Your task to perform on an android device: check out phone information Image 0: 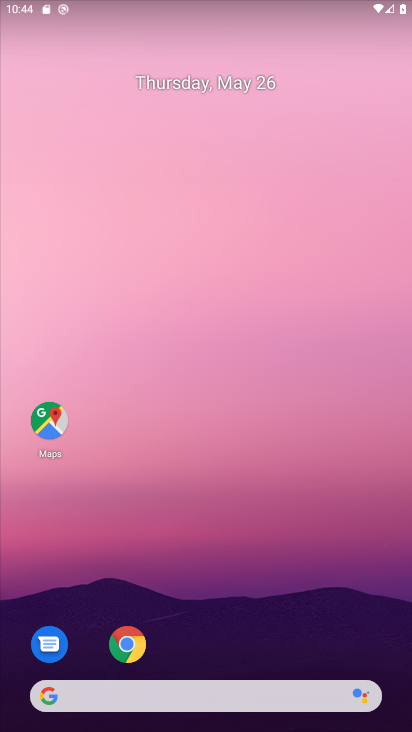
Step 0: drag from (356, 647) to (383, 264)
Your task to perform on an android device: check out phone information Image 1: 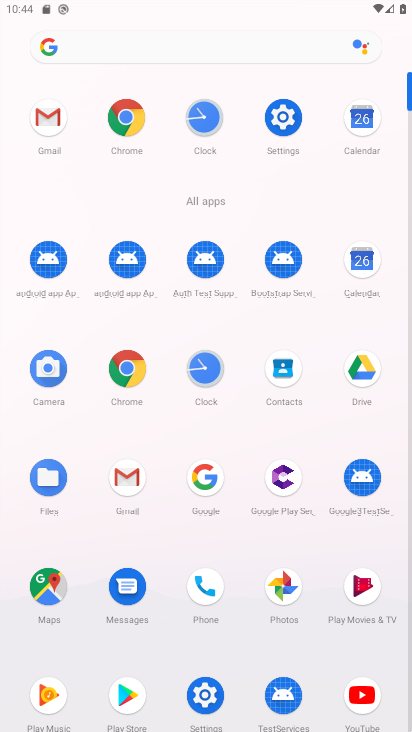
Step 1: click (204, 599)
Your task to perform on an android device: check out phone information Image 2: 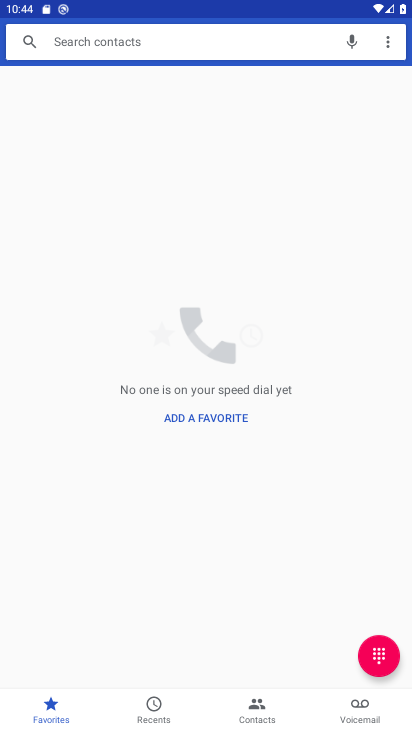
Step 2: click (153, 708)
Your task to perform on an android device: check out phone information Image 3: 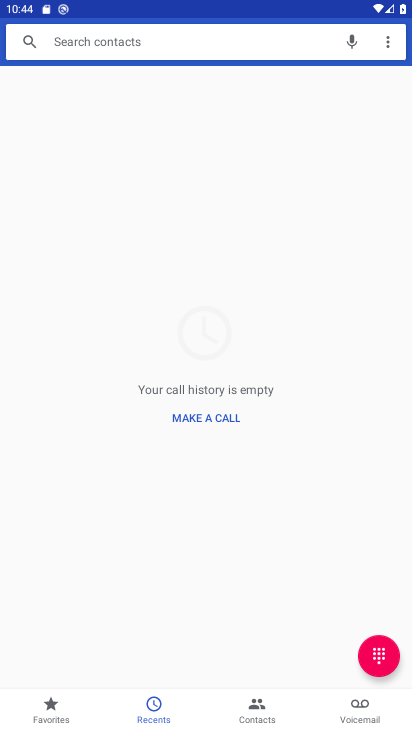
Step 3: task complete